Your task to perform on an android device: toggle sleep mode Image 0: 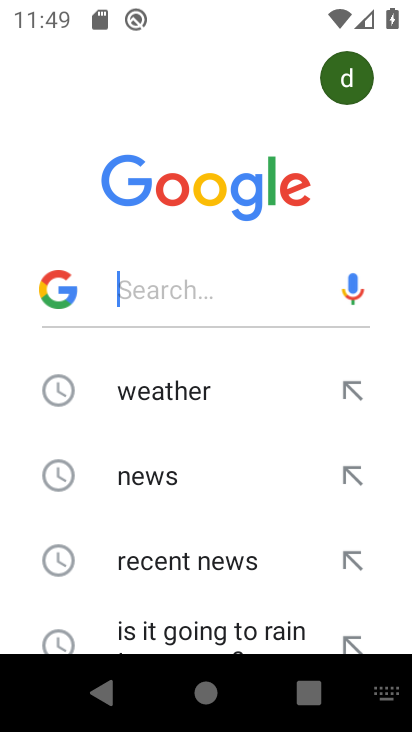
Step 0: press home button
Your task to perform on an android device: toggle sleep mode Image 1: 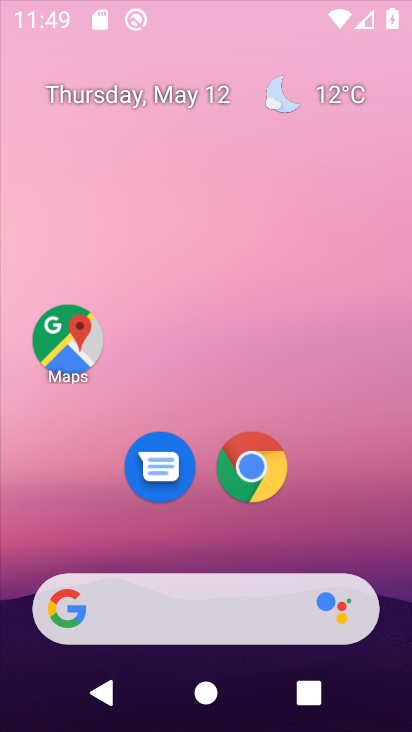
Step 1: drag from (295, 520) to (220, 19)
Your task to perform on an android device: toggle sleep mode Image 2: 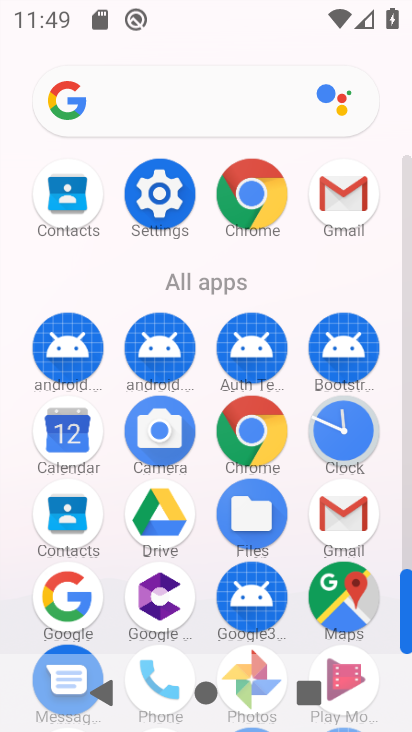
Step 2: click (144, 188)
Your task to perform on an android device: toggle sleep mode Image 3: 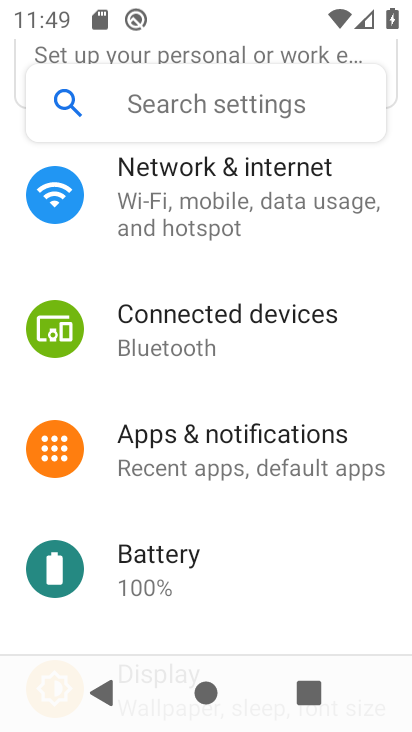
Step 3: drag from (224, 600) to (212, 309)
Your task to perform on an android device: toggle sleep mode Image 4: 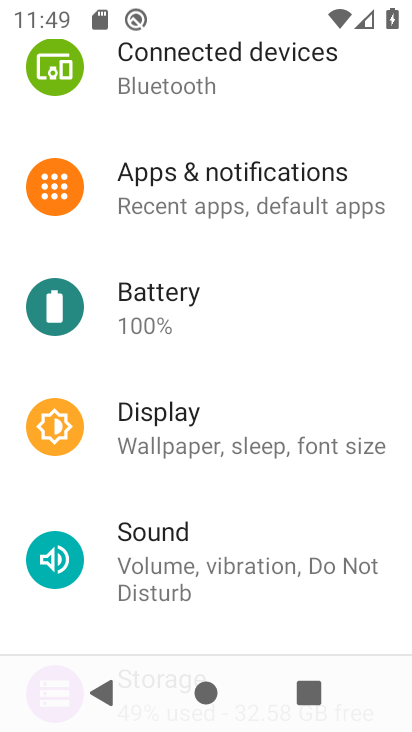
Step 4: click (217, 397)
Your task to perform on an android device: toggle sleep mode Image 5: 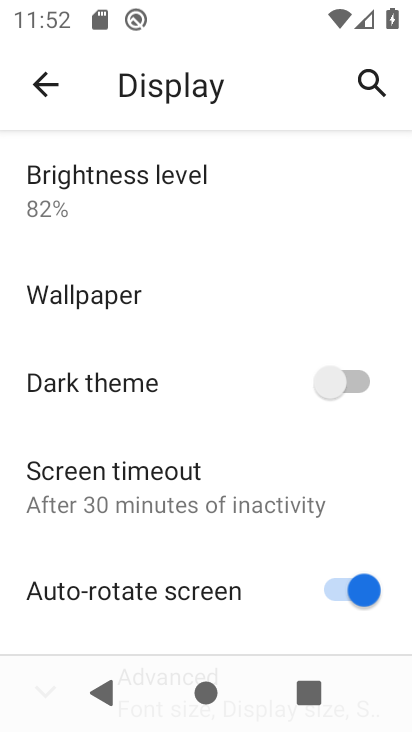
Step 5: task complete